Your task to perform on an android device: change timer sound Image 0: 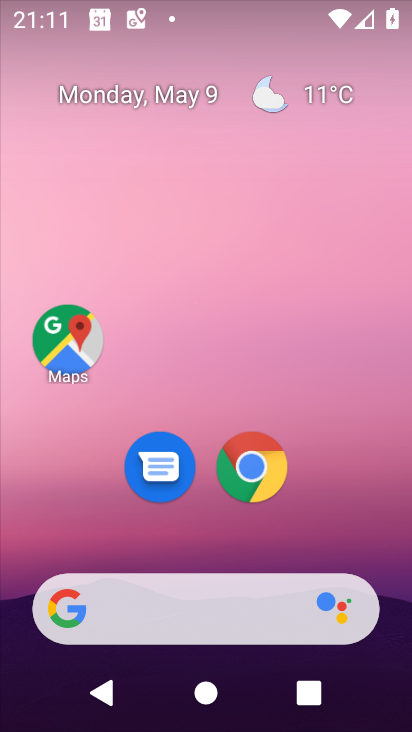
Step 0: drag from (319, 508) to (330, 230)
Your task to perform on an android device: change timer sound Image 1: 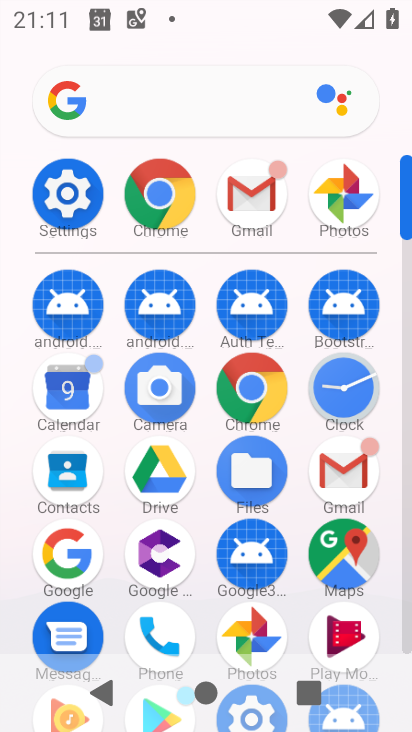
Step 1: click (345, 384)
Your task to perform on an android device: change timer sound Image 2: 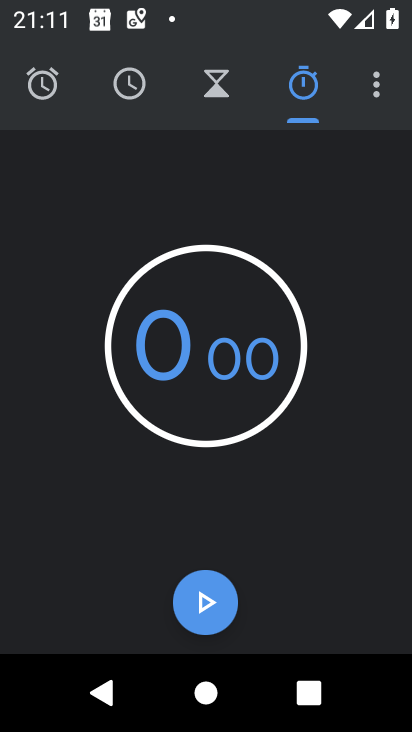
Step 2: click (352, 87)
Your task to perform on an android device: change timer sound Image 3: 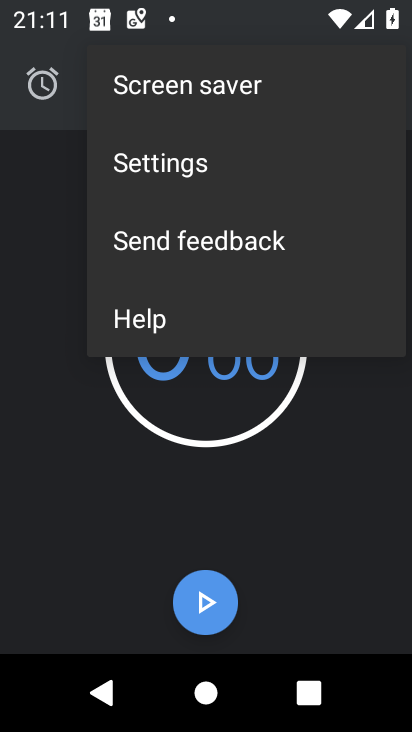
Step 3: click (158, 168)
Your task to perform on an android device: change timer sound Image 4: 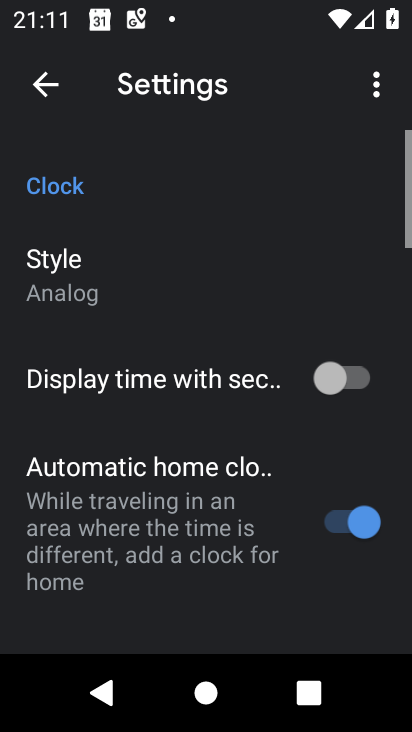
Step 4: drag from (159, 554) to (224, 124)
Your task to perform on an android device: change timer sound Image 5: 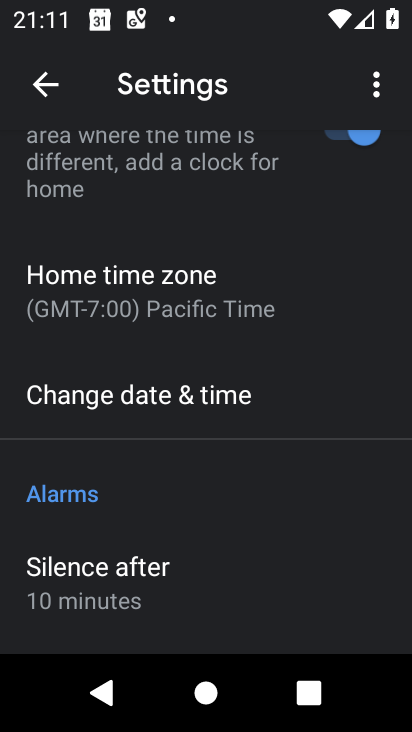
Step 5: drag from (142, 530) to (242, 154)
Your task to perform on an android device: change timer sound Image 6: 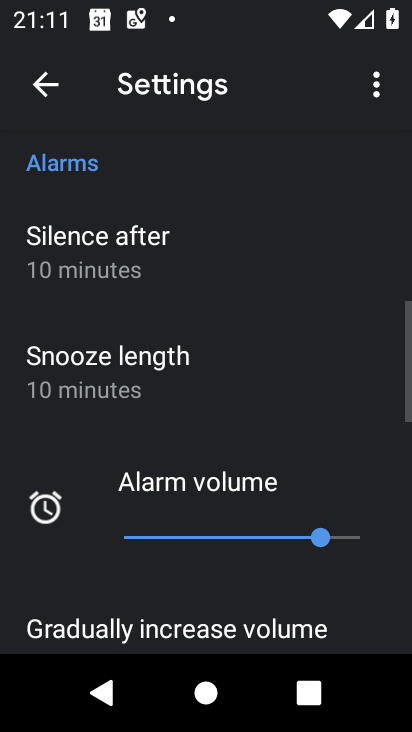
Step 6: drag from (155, 529) to (237, 155)
Your task to perform on an android device: change timer sound Image 7: 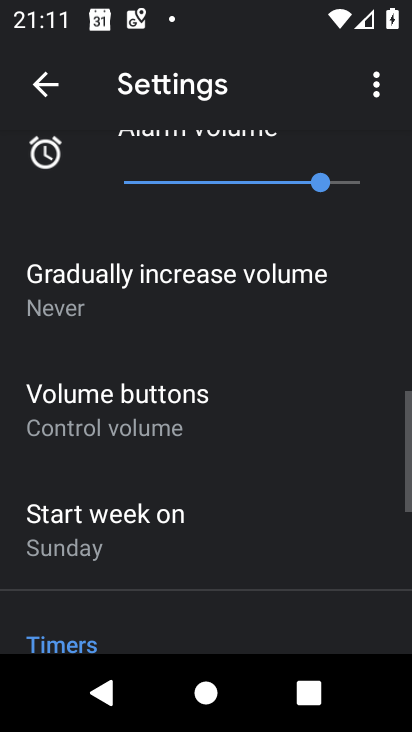
Step 7: drag from (165, 578) to (240, 288)
Your task to perform on an android device: change timer sound Image 8: 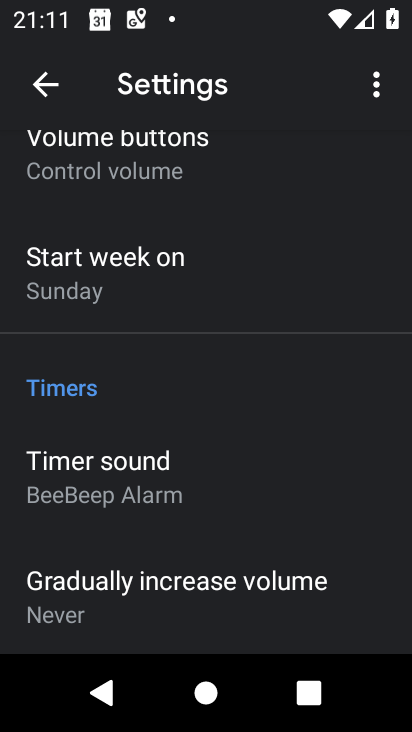
Step 8: click (155, 498)
Your task to perform on an android device: change timer sound Image 9: 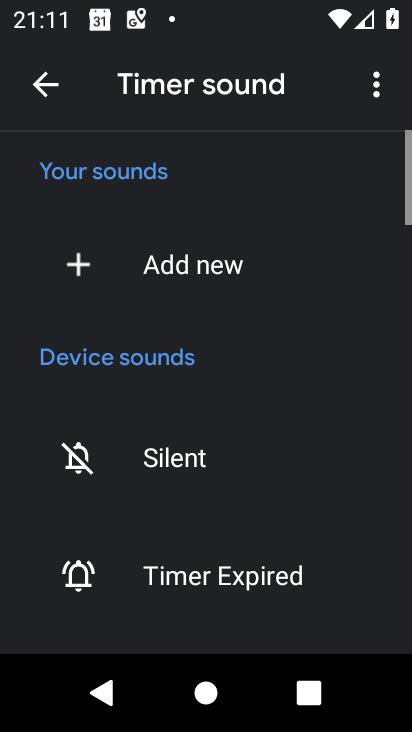
Step 9: drag from (211, 550) to (257, 201)
Your task to perform on an android device: change timer sound Image 10: 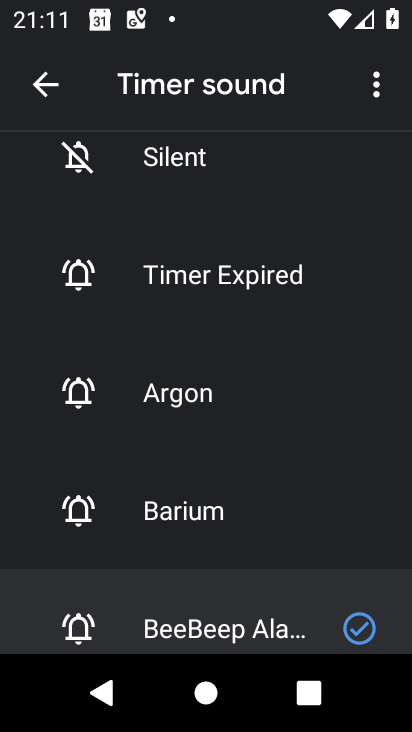
Step 10: click (146, 503)
Your task to perform on an android device: change timer sound Image 11: 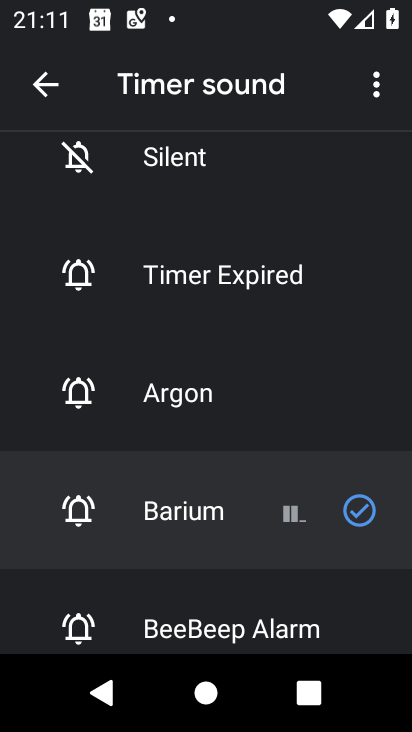
Step 11: task complete